Your task to perform on an android device: Do I have any events this weekend? Image 0: 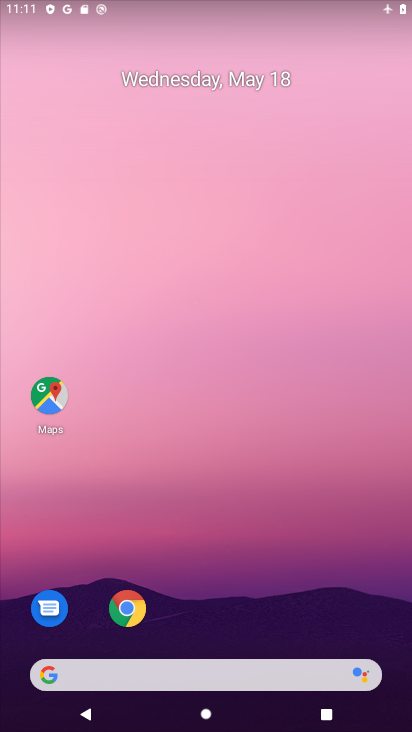
Step 0: drag from (171, 590) to (114, 142)
Your task to perform on an android device: Do I have any events this weekend? Image 1: 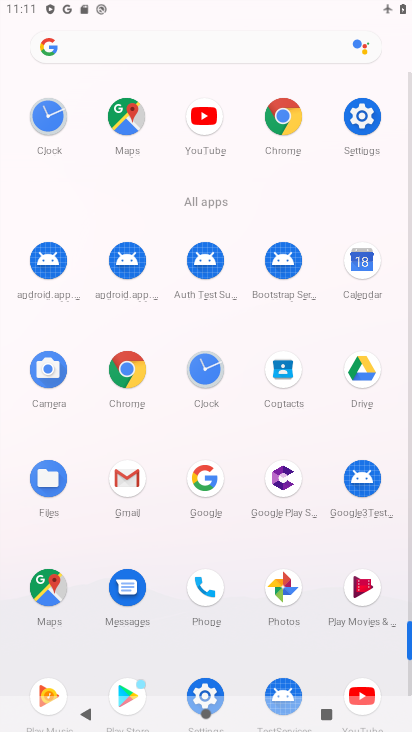
Step 1: click (364, 256)
Your task to perform on an android device: Do I have any events this weekend? Image 2: 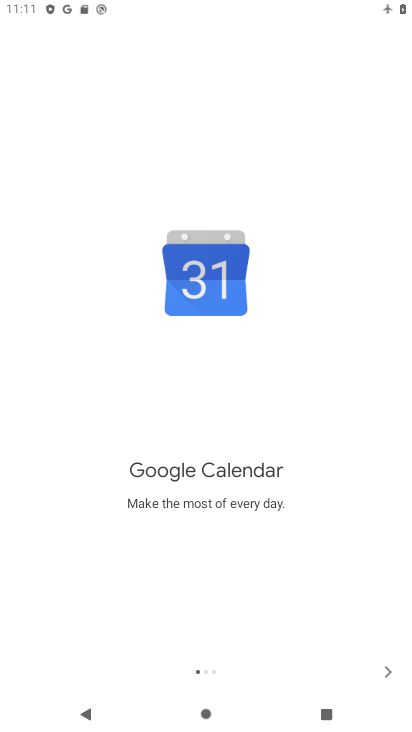
Step 2: click (389, 675)
Your task to perform on an android device: Do I have any events this weekend? Image 3: 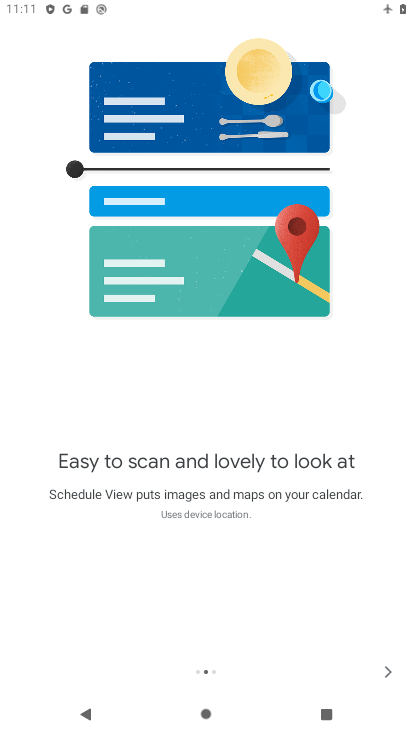
Step 3: click (389, 675)
Your task to perform on an android device: Do I have any events this weekend? Image 4: 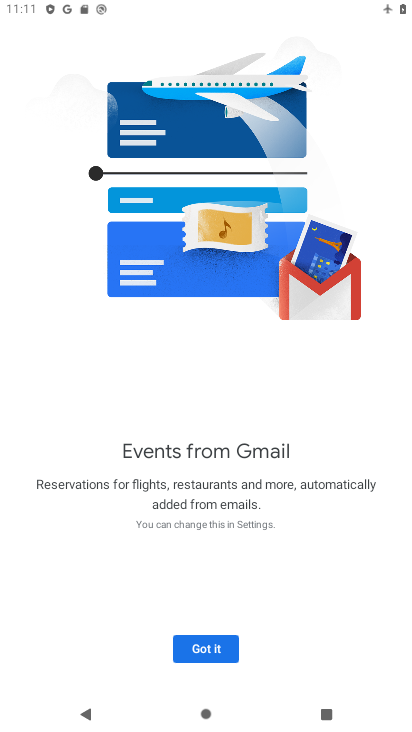
Step 4: click (196, 653)
Your task to perform on an android device: Do I have any events this weekend? Image 5: 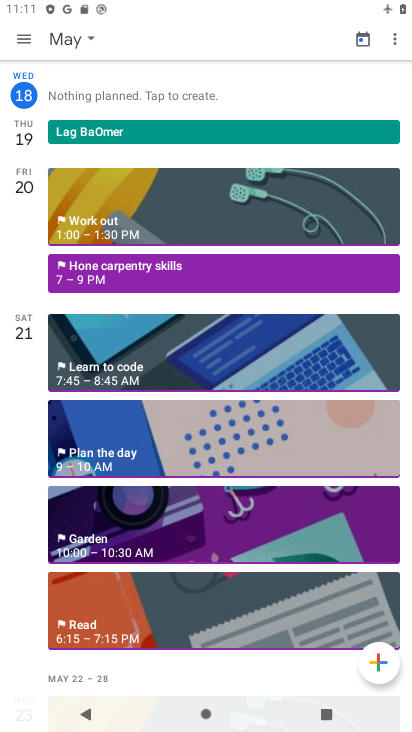
Step 5: task complete